Your task to perform on an android device: Reply to the last email I received with 'Charles ate the clouds like cotton candy.' Image 0: 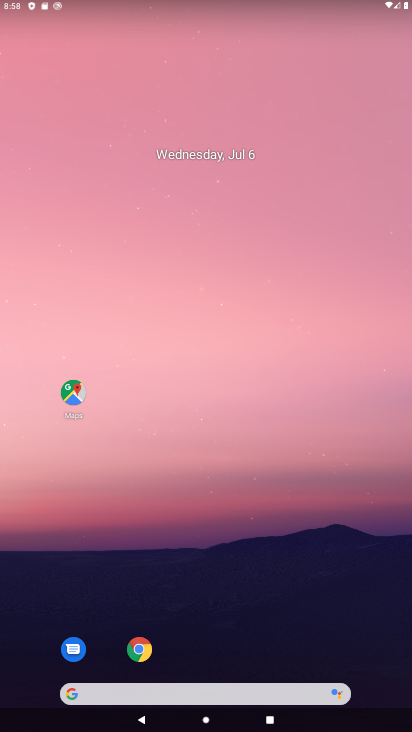
Step 0: drag from (292, 688) to (208, 83)
Your task to perform on an android device: Reply to the last email I received with 'Charles ate the clouds like cotton candy.' Image 1: 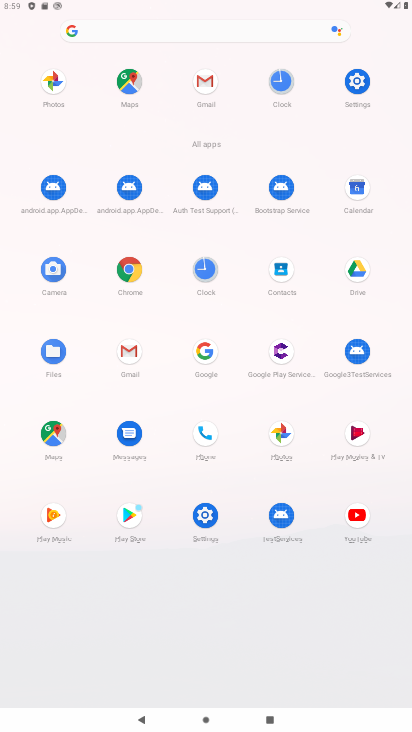
Step 1: click (199, 83)
Your task to perform on an android device: Reply to the last email I received with 'Charles ate the clouds like cotton candy.' Image 2: 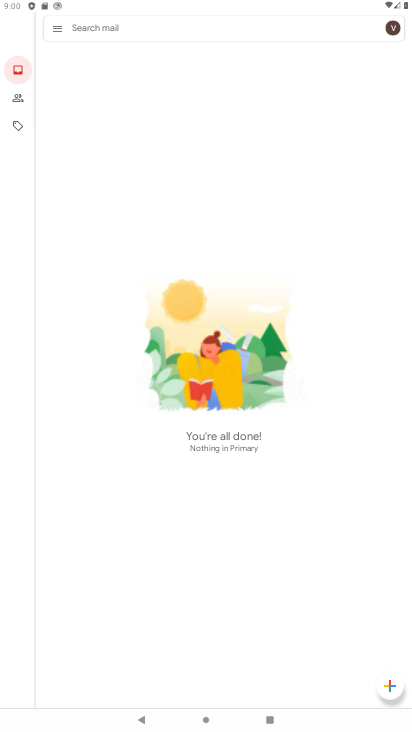
Step 2: task complete